Your task to perform on an android device: Is it going to rain tomorrow? Image 0: 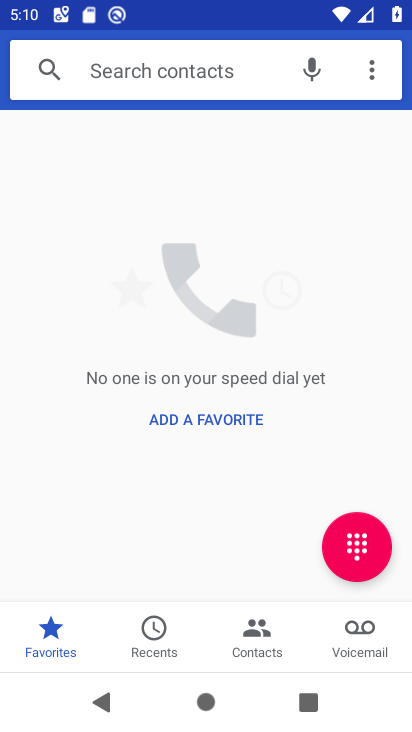
Step 0: press home button
Your task to perform on an android device: Is it going to rain tomorrow? Image 1: 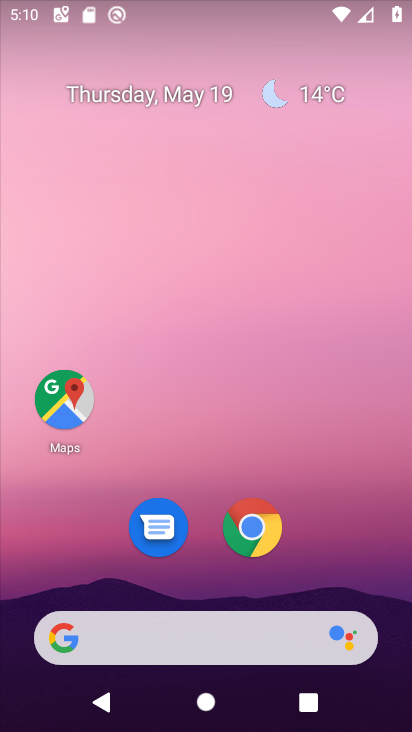
Step 1: click (343, 89)
Your task to perform on an android device: Is it going to rain tomorrow? Image 2: 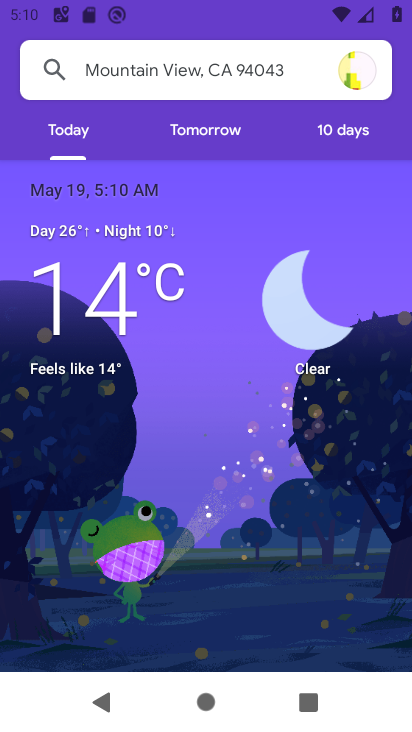
Step 2: click (202, 133)
Your task to perform on an android device: Is it going to rain tomorrow? Image 3: 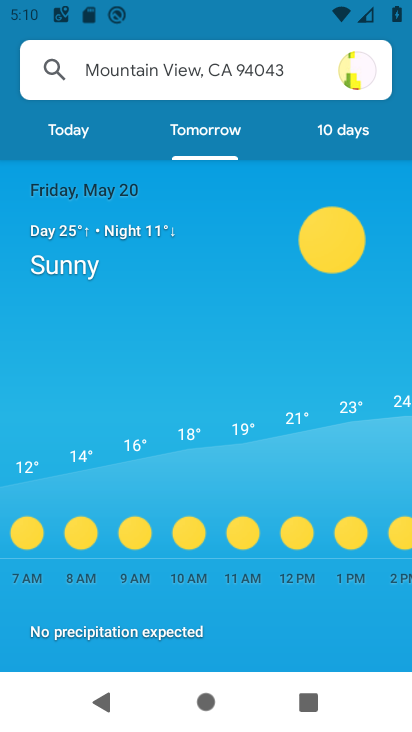
Step 3: task complete